Your task to perform on an android device: Go to Yahoo.com Image 0: 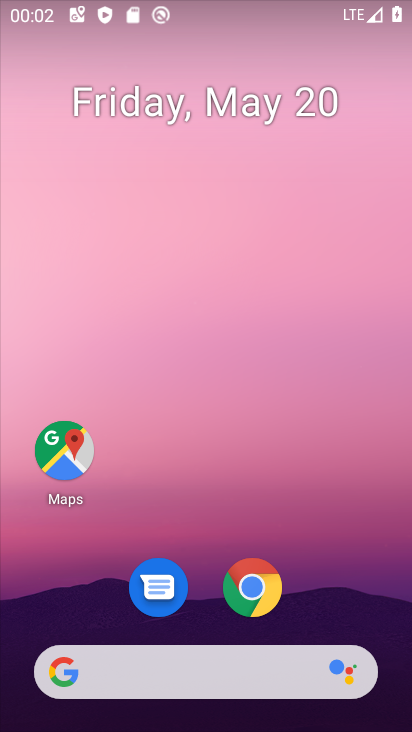
Step 0: press home button
Your task to perform on an android device: Go to Yahoo.com Image 1: 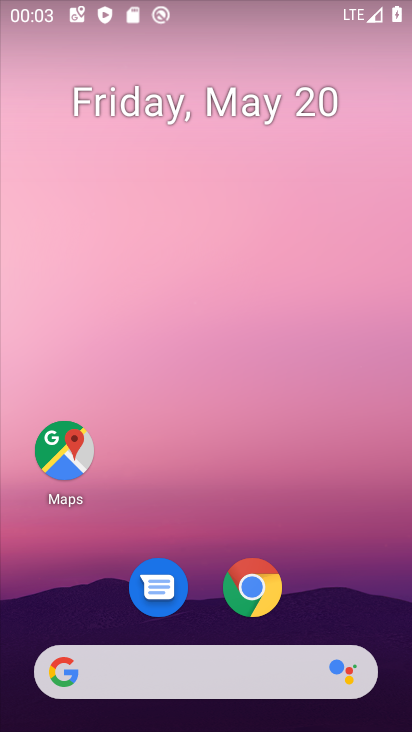
Step 1: drag from (254, 702) to (231, 182)
Your task to perform on an android device: Go to Yahoo.com Image 2: 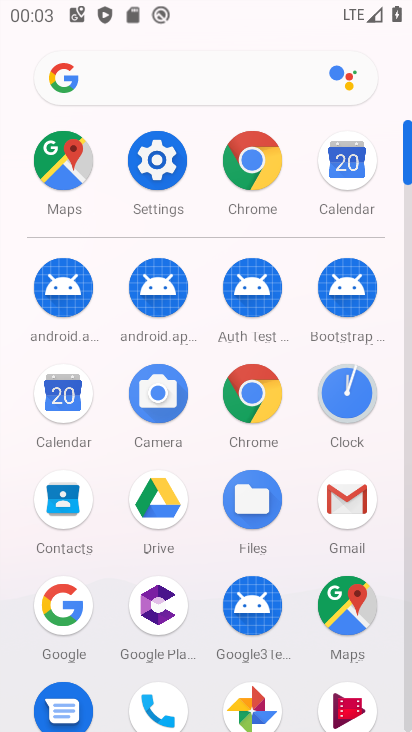
Step 2: click (237, 159)
Your task to perform on an android device: Go to Yahoo.com Image 3: 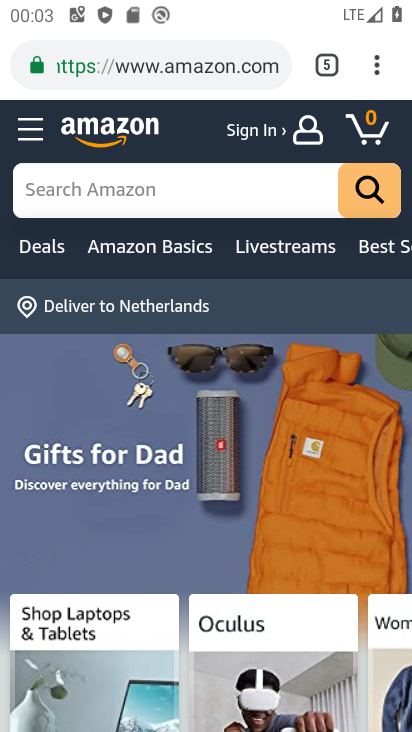
Step 3: click (219, 70)
Your task to perform on an android device: Go to Yahoo.com Image 4: 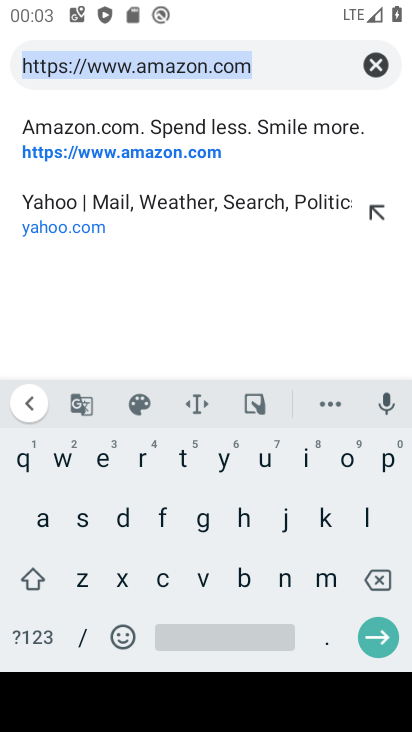
Step 4: click (220, 463)
Your task to perform on an android device: Go to Yahoo.com Image 5: 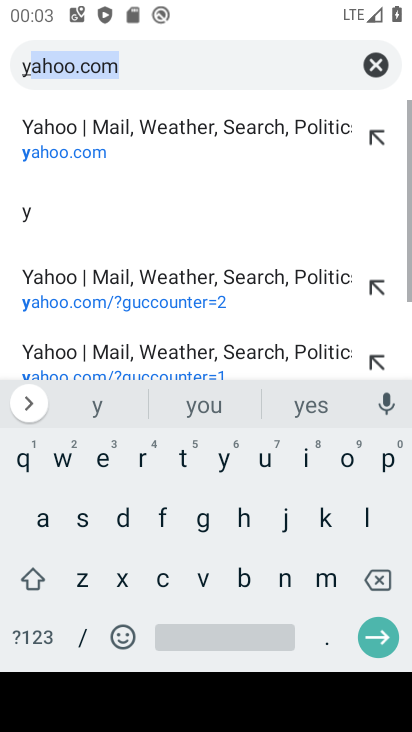
Step 5: click (44, 519)
Your task to perform on an android device: Go to Yahoo.com Image 6: 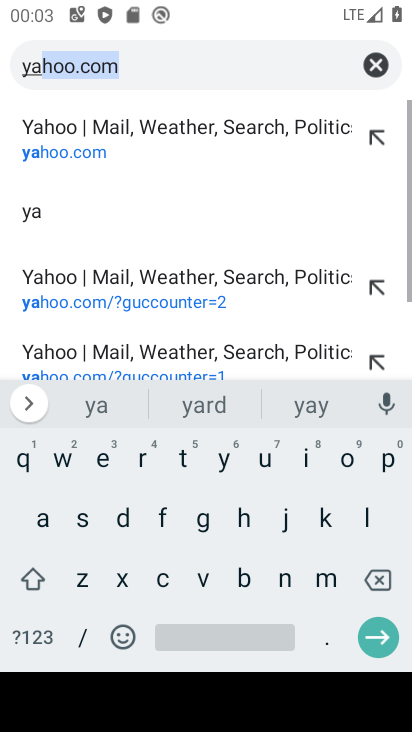
Step 6: click (127, 65)
Your task to perform on an android device: Go to Yahoo.com Image 7: 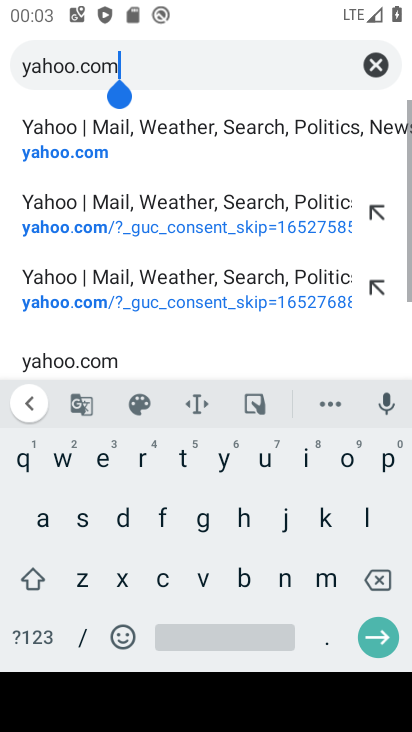
Step 7: click (396, 639)
Your task to perform on an android device: Go to Yahoo.com Image 8: 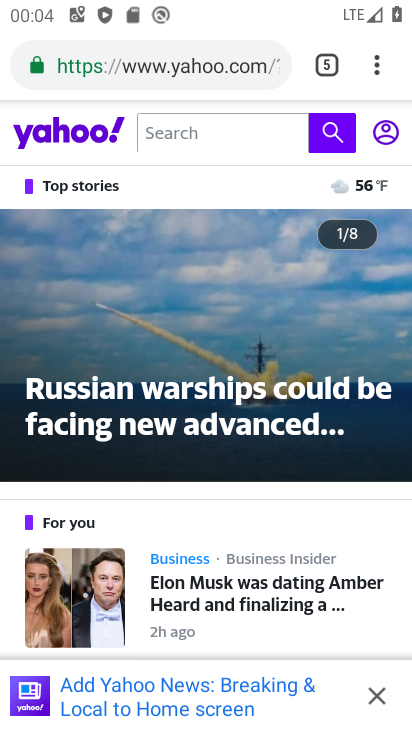
Step 8: task complete